Your task to perform on an android device: check android version Image 0: 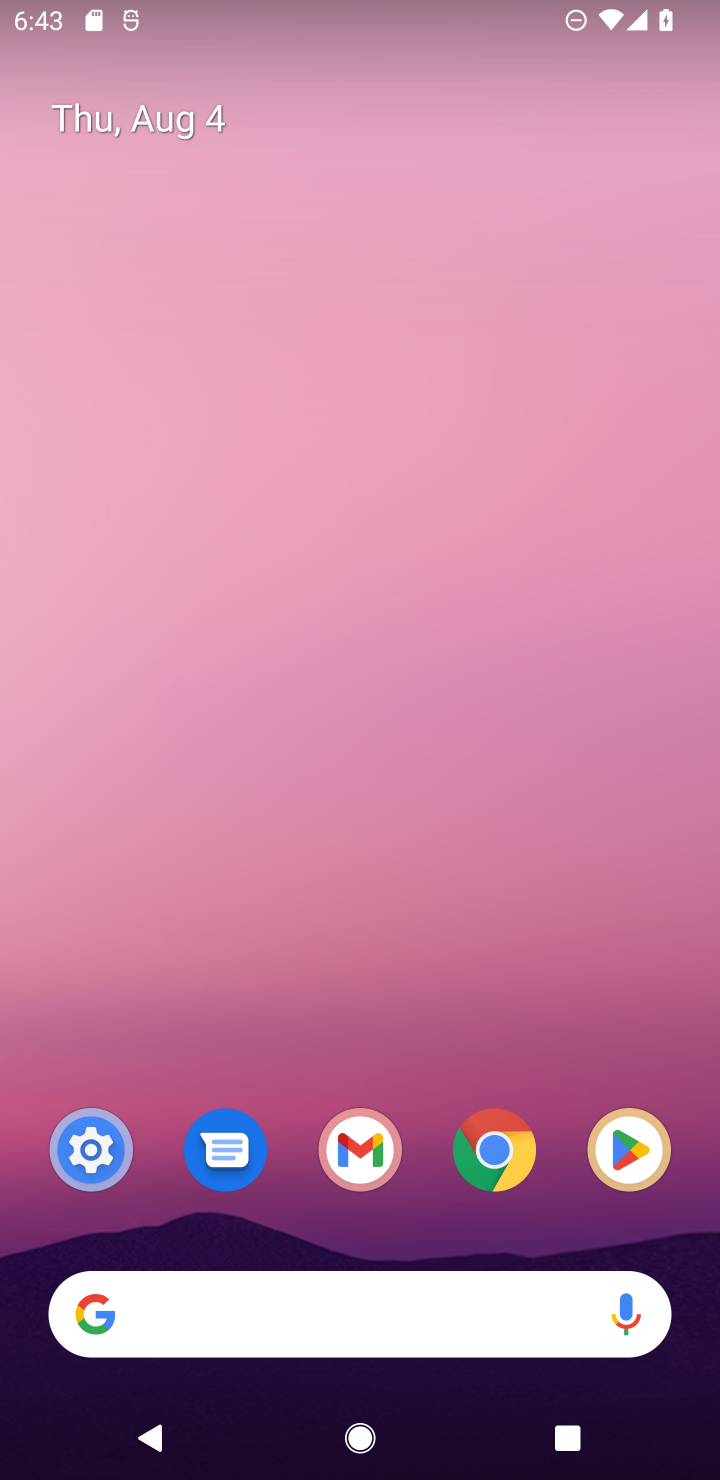
Step 0: drag from (475, 937) to (490, 159)
Your task to perform on an android device: check android version Image 1: 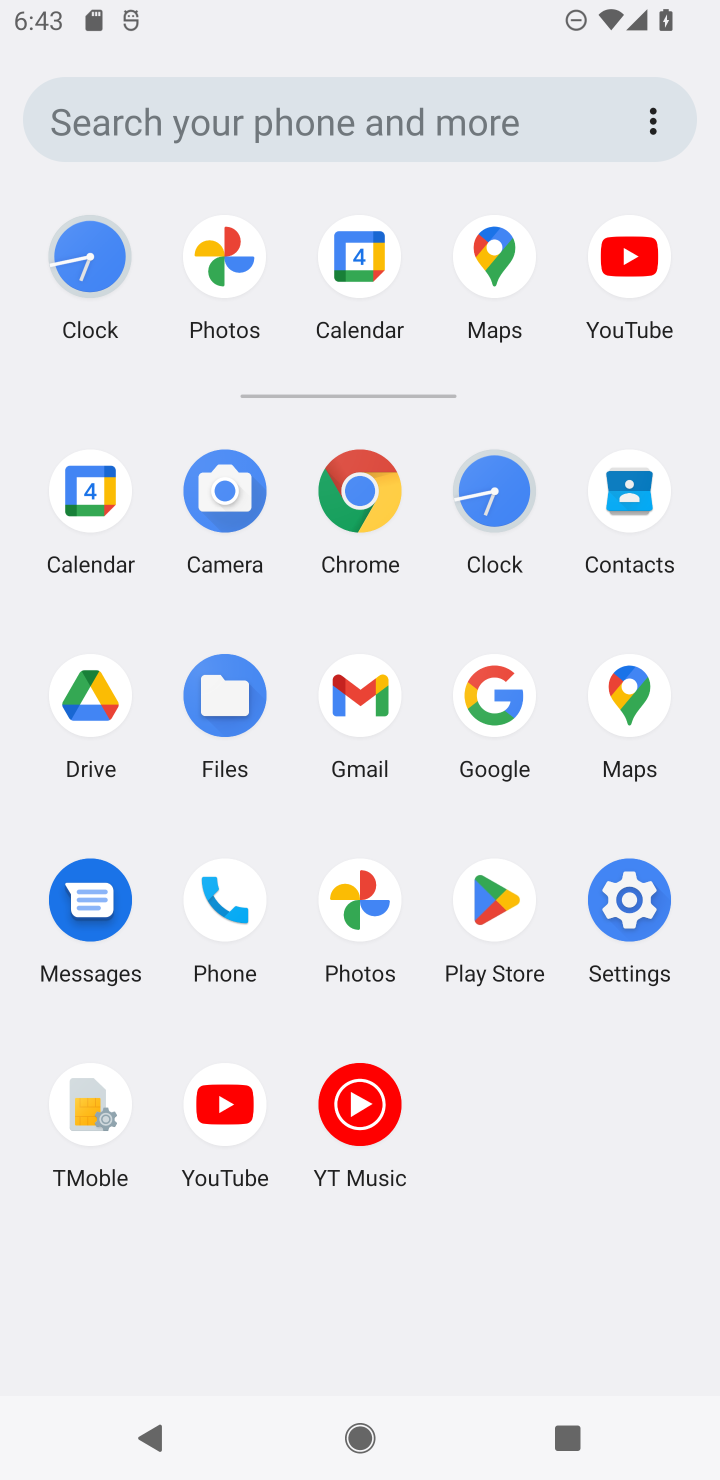
Step 1: click (608, 895)
Your task to perform on an android device: check android version Image 2: 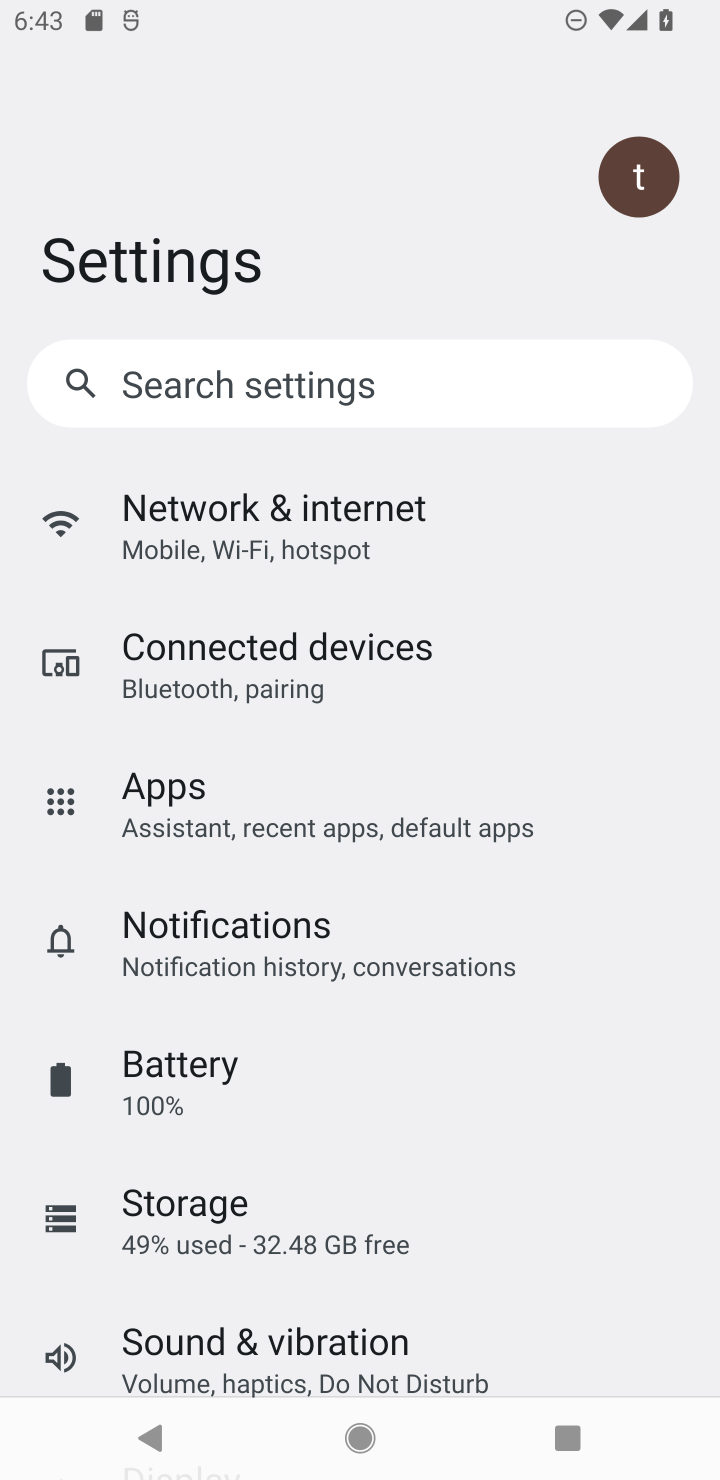
Step 2: drag from (281, 1235) to (421, 106)
Your task to perform on an android device: check android version Image 3: 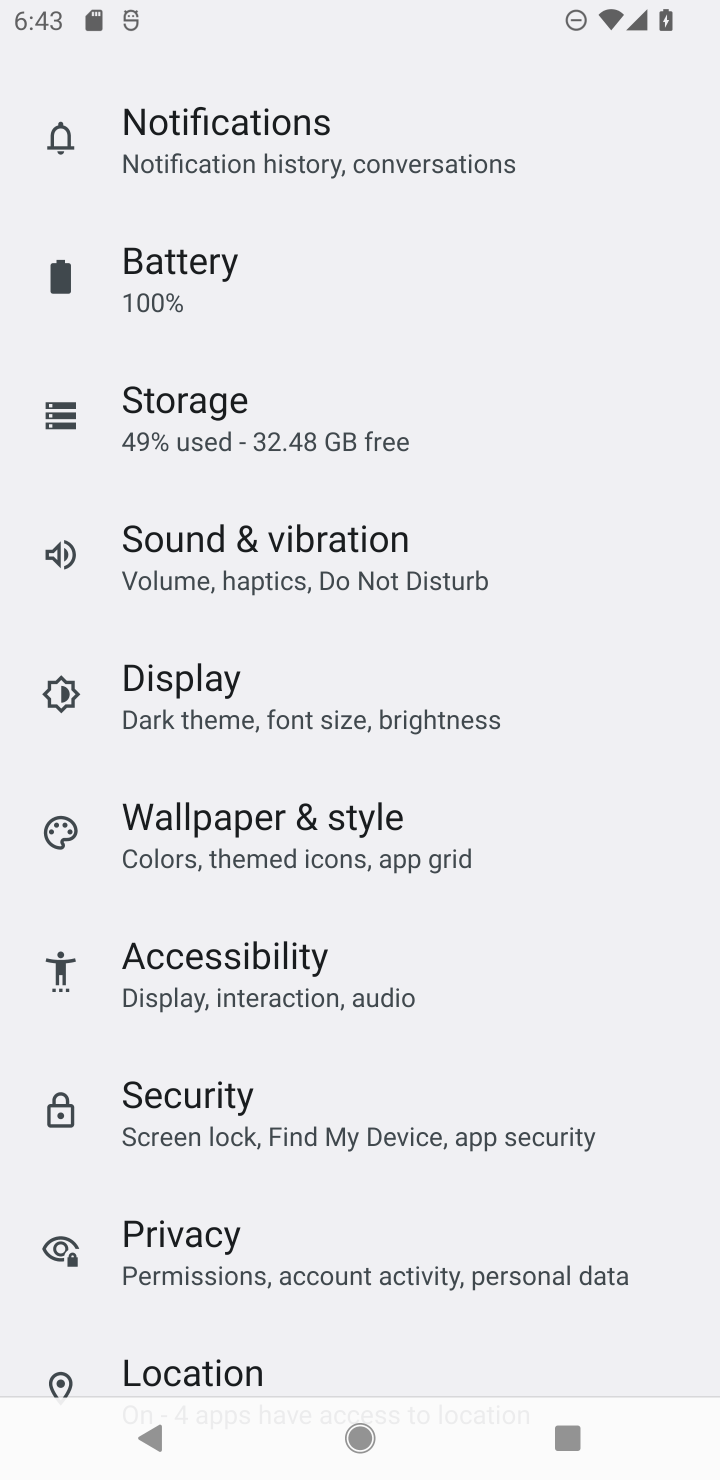
Step 3: drag from (402, 1137) to (615, 102)
Your task to perform on an android device: check android version Image 4: 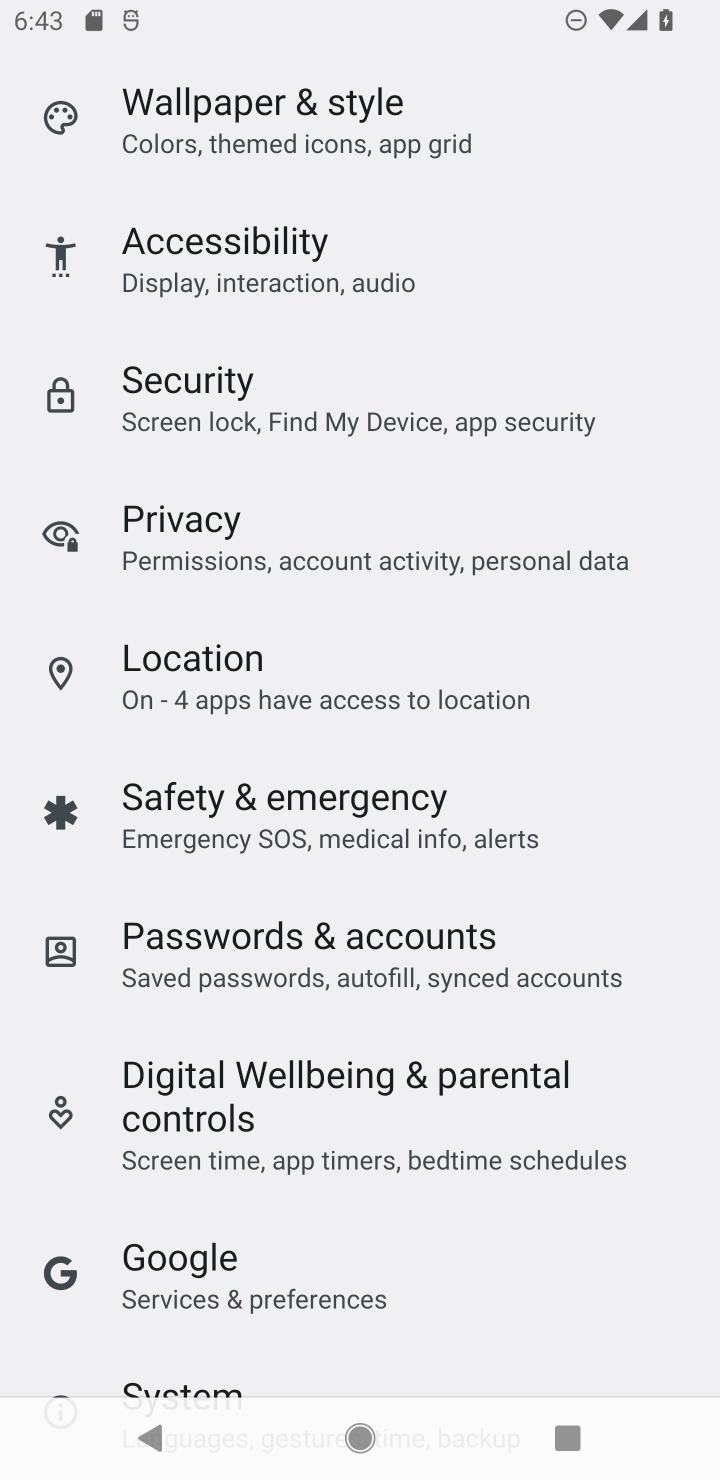
Step 4: drag from (329, 1296) to (615, 105)
Your task to perform on an android device: check android version Image 5: 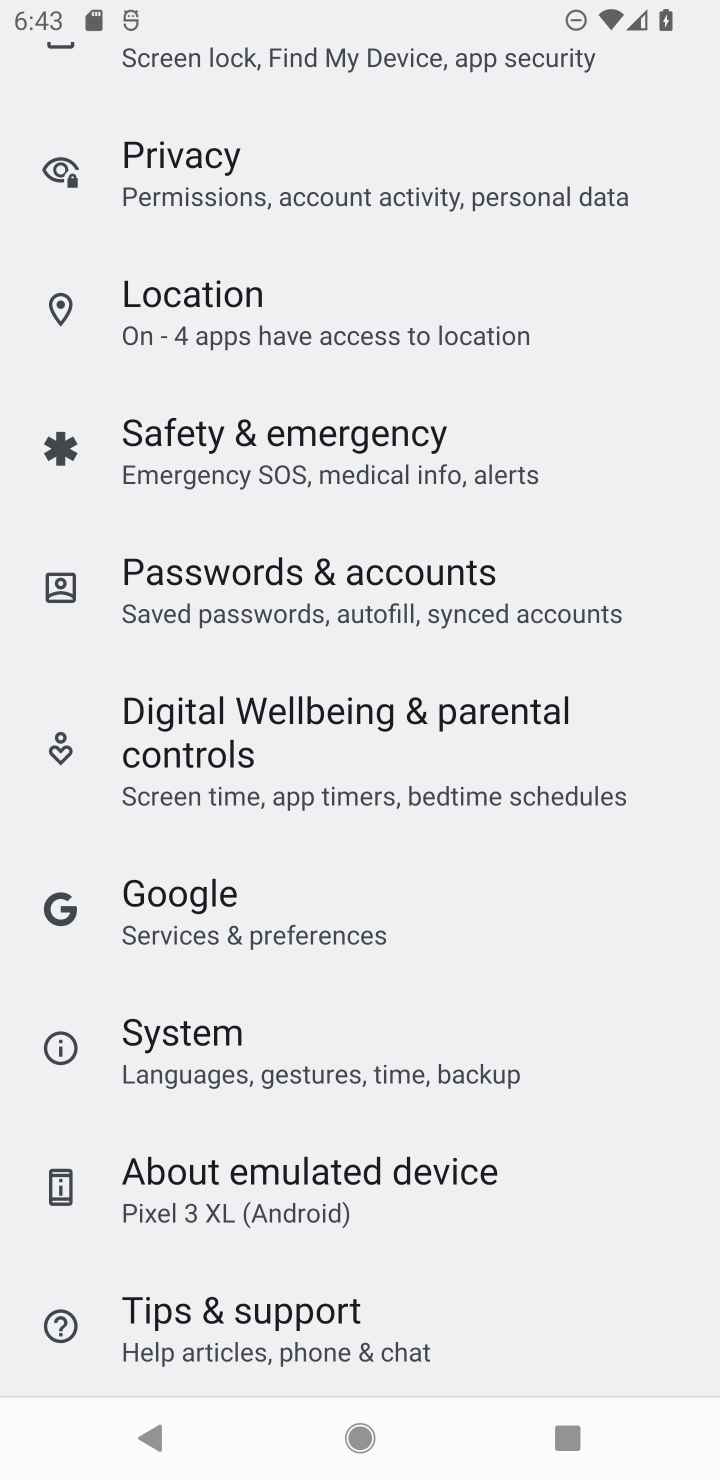
Step 5: click (260, 1203)
Your task to perform on an android device: check android version Image 6: 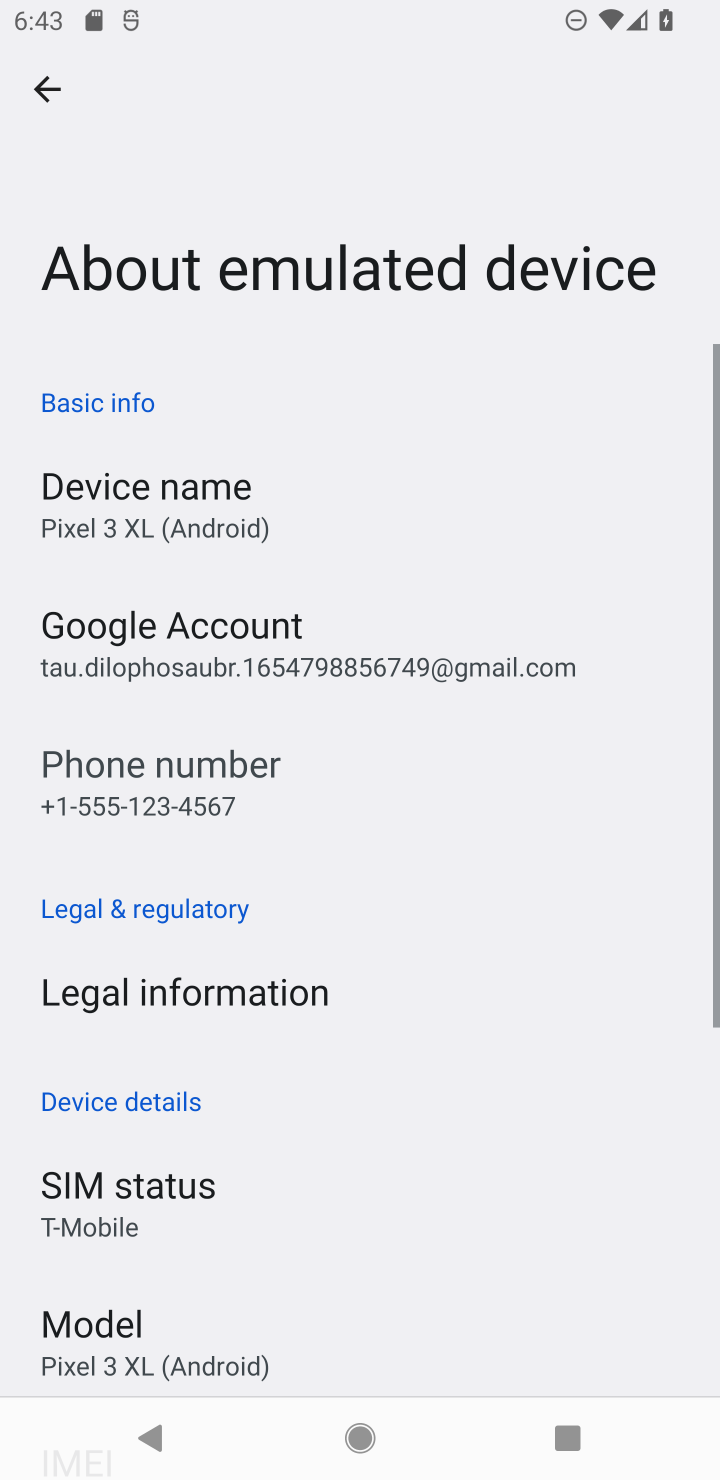
Step 6: drag from (303, 1242) to (366, 226)
Your task to perform on an android device: check android version Image 7: 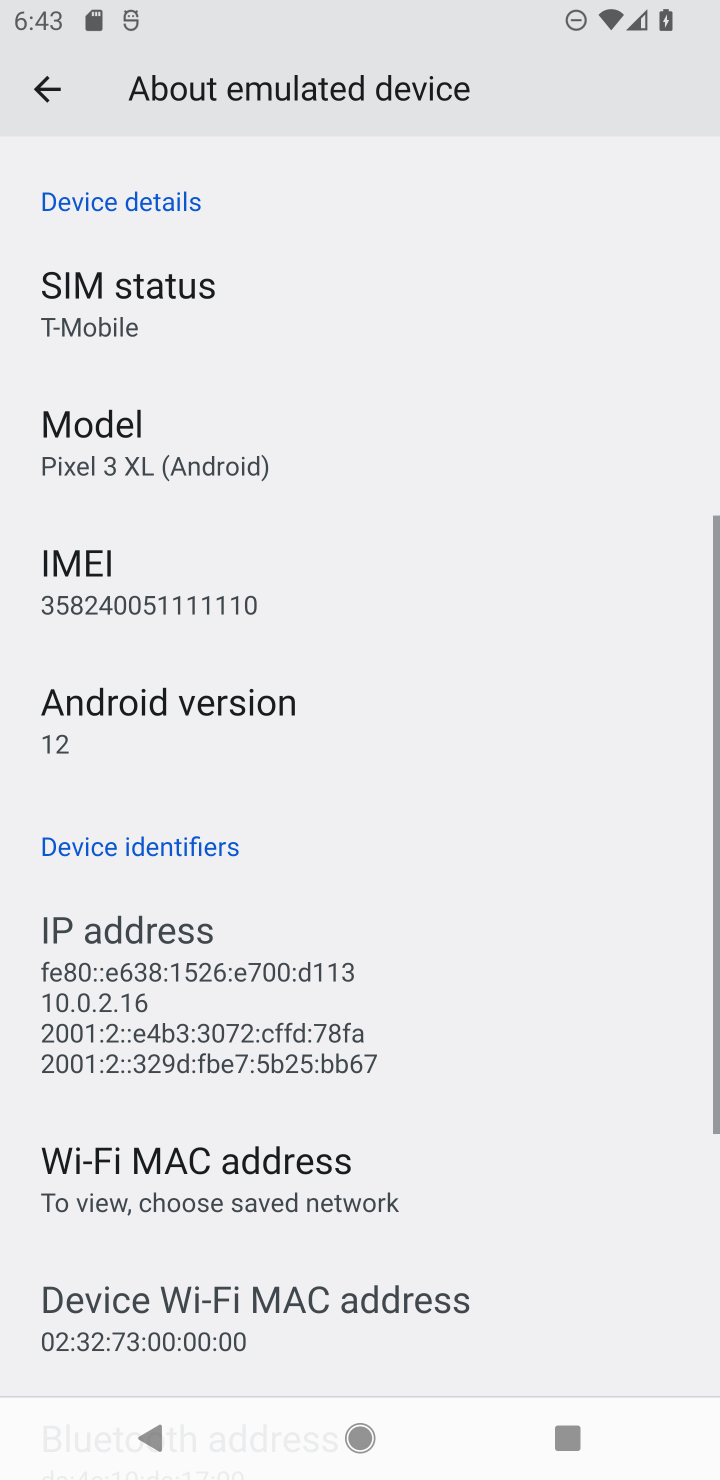
Step 7: click (190, 716)
Your task to perform on an android device: check android version Image 8: 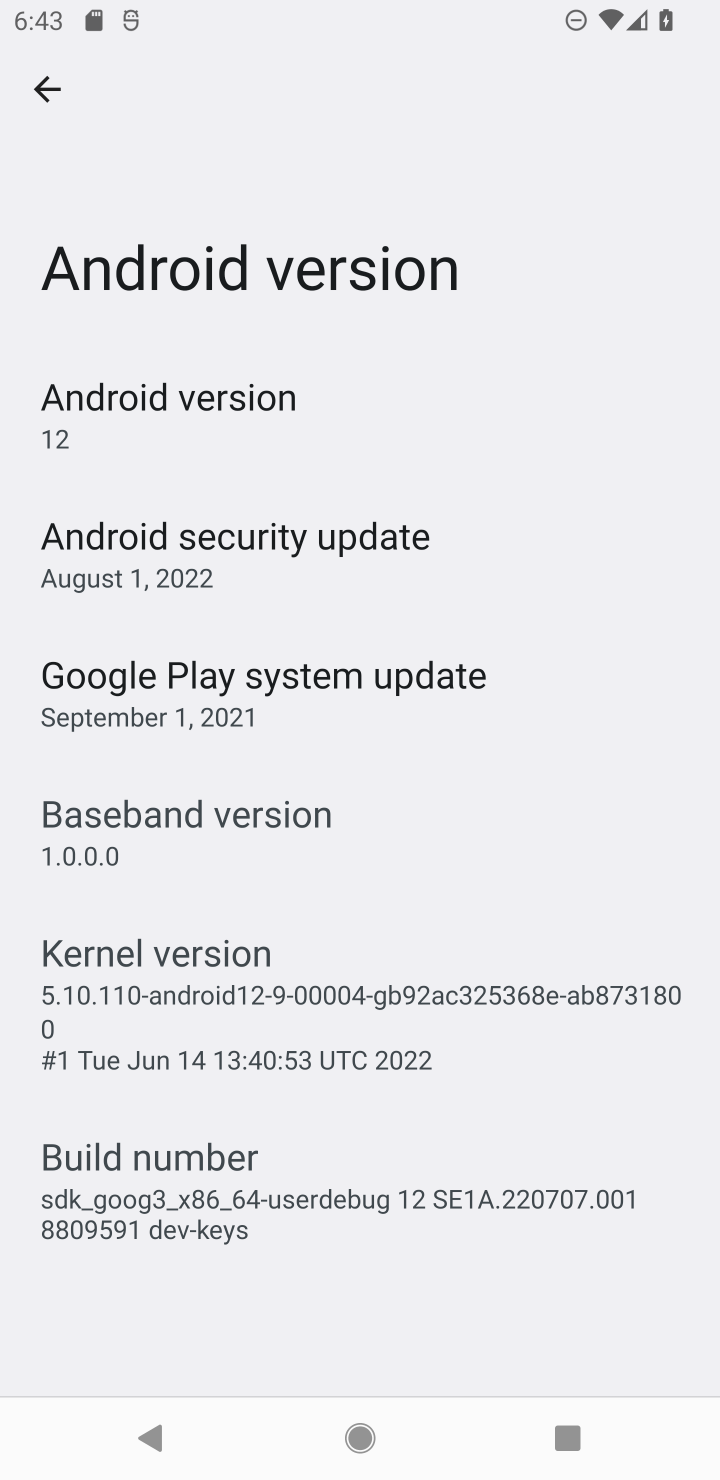
Step 8: task complete